Your task to perform on an android device: find snoozed emails in the gmail app Image 0: 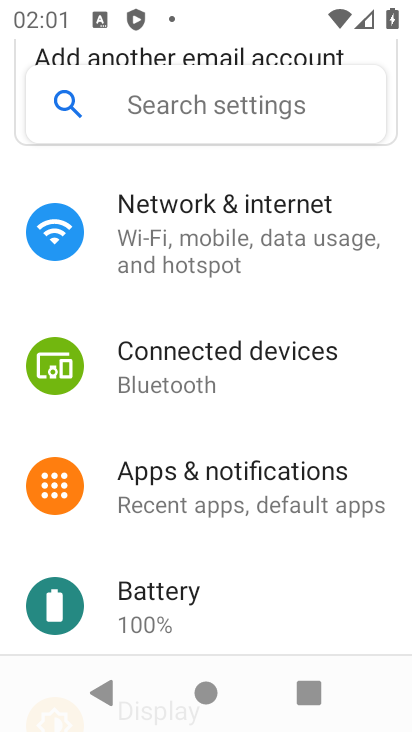
Step 0: press home button
Your task to perform on an android device: find snoozed emails in the gmail app Image 1: 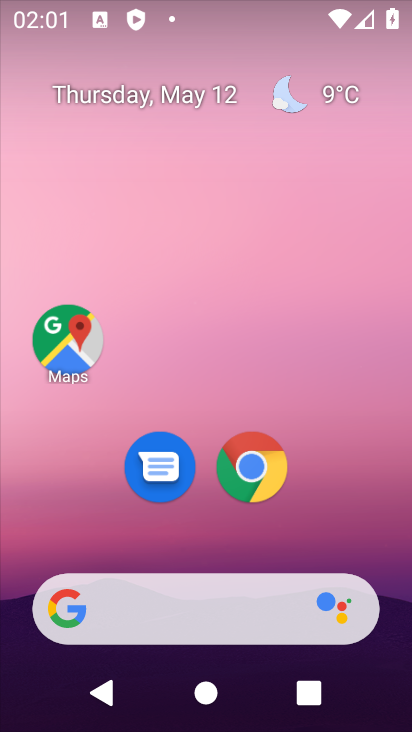
Step 1: drag from (283, 538) to (309, 224)
Your task to perform on an android device: find snoozed emails in the gmail app Image 2: 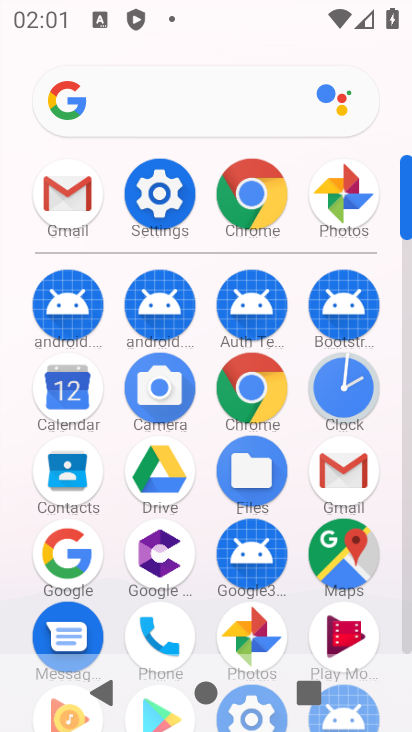
Step 2: click (331, 470)
Your task to perform on an android device: find snoozed emails in the gmail app Image 3: 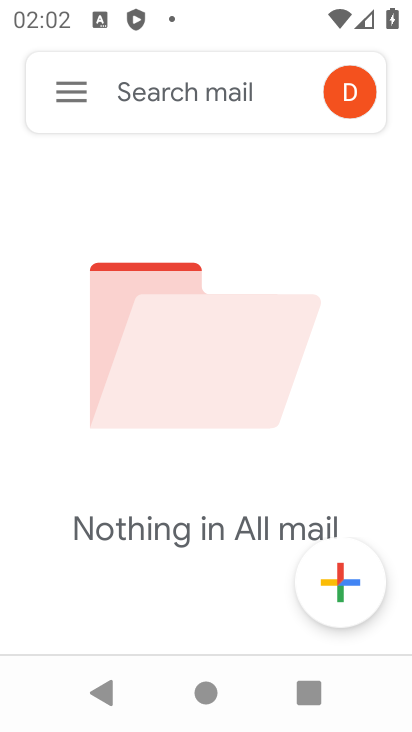
Step 3: click (62, 96)
Your task to perform on an android device: find snoozed emails in the gmail app Image 4: 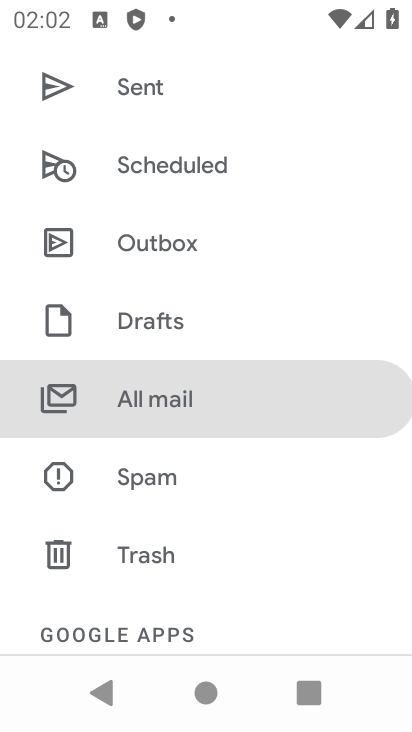
Step 4: drag from (184, 177) to (201, 474)
Your task to perform on an android device: find snoozed emails in the gmail app Image 5: 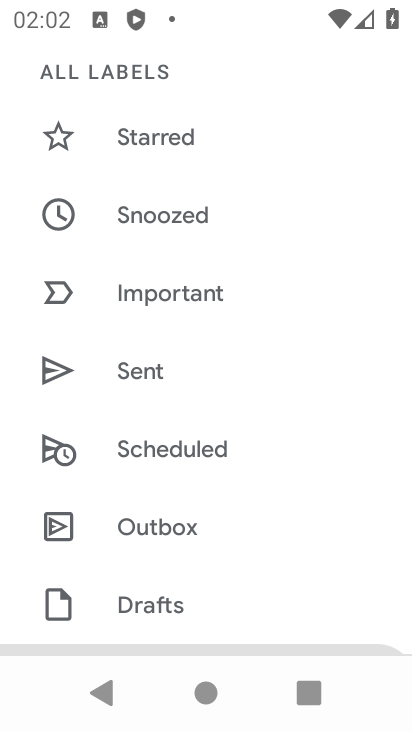
Step 5: click (202, 467)
Your task to perform on an android device: find snoozed emails in the gmail app Image 6: 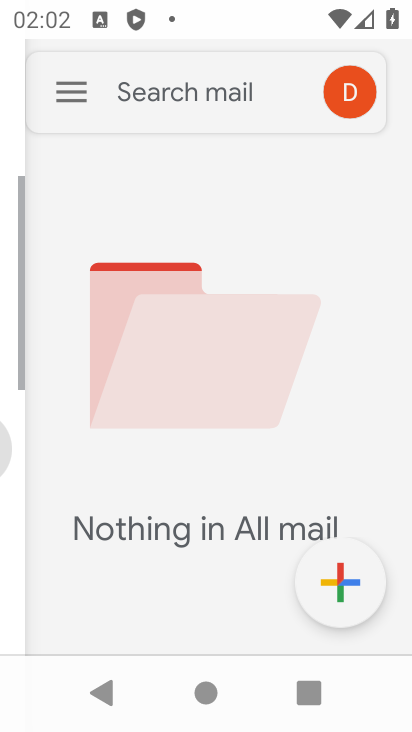
Step 6: click (170, 207)
Your task to perform on an android device: find snoozed emails in the gmail app Image 7: 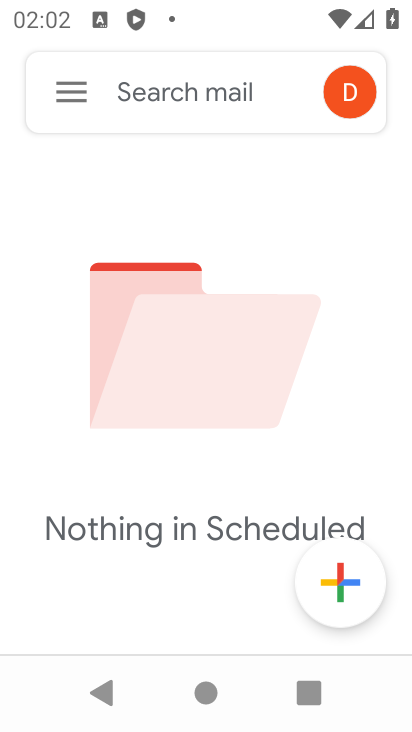
Step 7: click (60, 88)
Your task to perform on an android device: find snoozed emails in the gmail app Image 8: 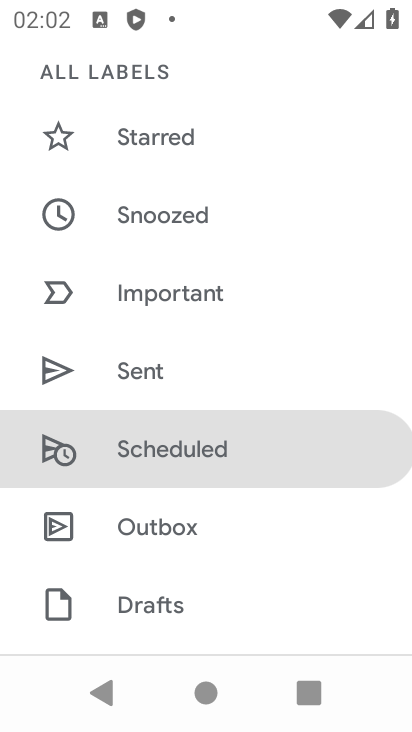
Step 8: click (151, 218)
Your task to perform on an android device: find snoozed emails in the gmail app Image 9: 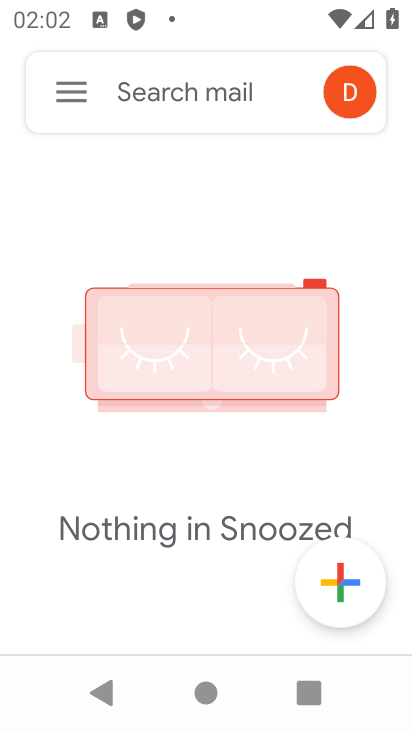
Step 9: task complete